Your task to perform on an android device: add a contact in the contacts app Image 0: 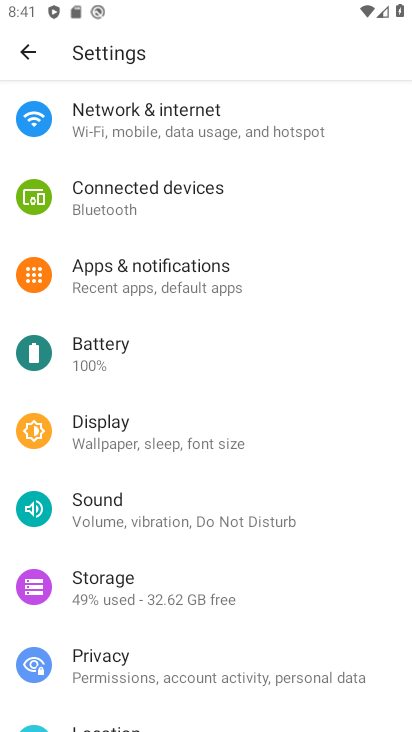
Step 0: press home button
Your task to perform on an android device: add a contact in the contacts app Image 1: 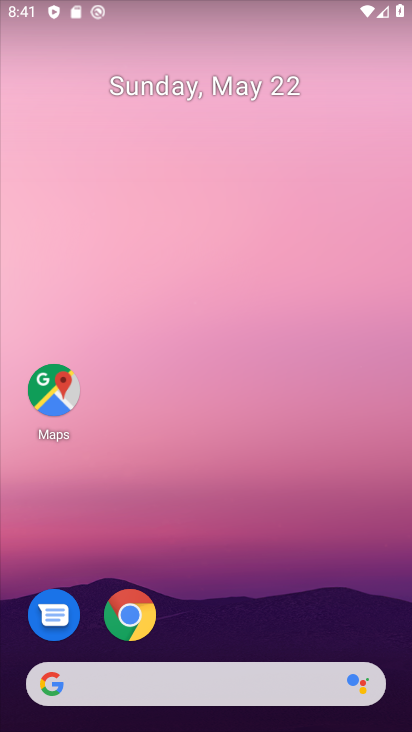
Step 1: drag from (287, 604) to (262, 264)
Your task to perform on an android device: add a contact in the contacts app Image 2: 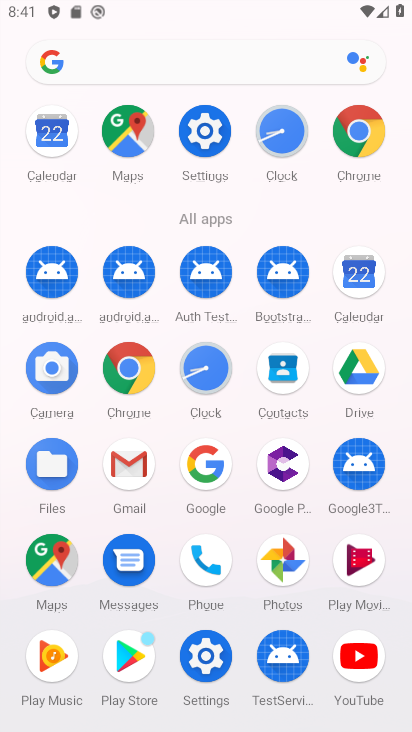
Step 2: click (214, 555)
Your task to perform on an android device: add a contact in the contacts app Image 3: 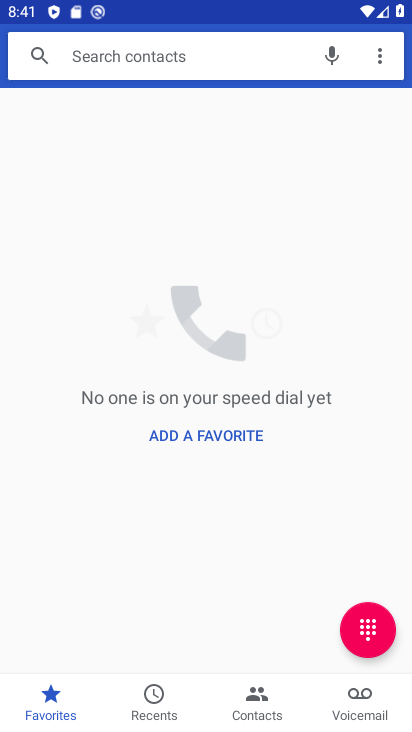
Step 3: click (209, 432)
Your task to perform on an android device: add a contact in the contacts app Image 4: 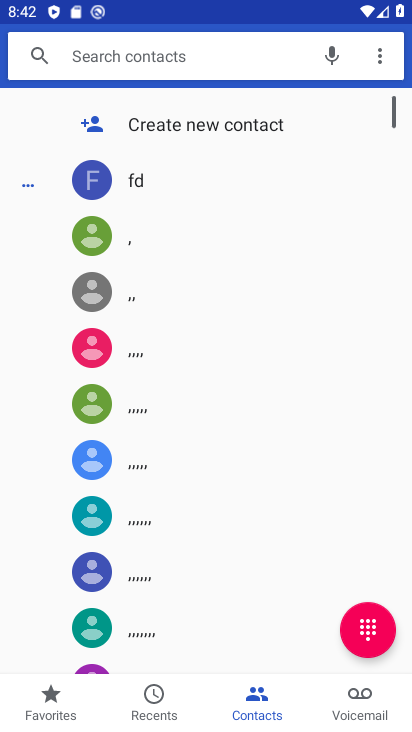
Step 4: click (164, 126)
Your task to perform on an android device: add a contact in the contacts app Image 5: 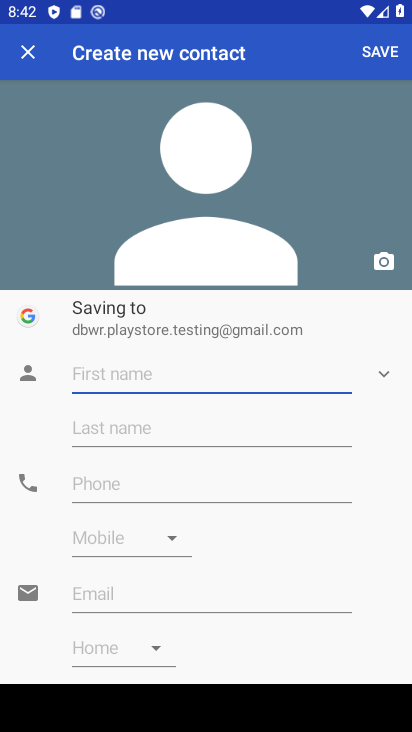
Step 5: click (173, 369)
Your task to perform on an android device: add a contact in the contacts app Image 6: 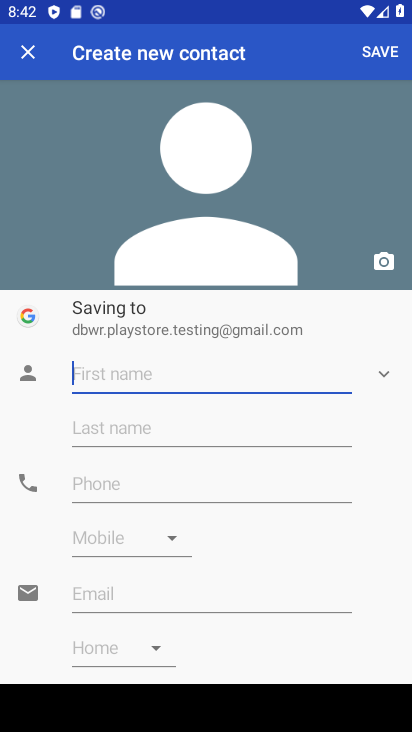
Step 6: type "kjkjkjkjkjk"
Your task to perform on an android device: add a contact in the contacts app Image 7: 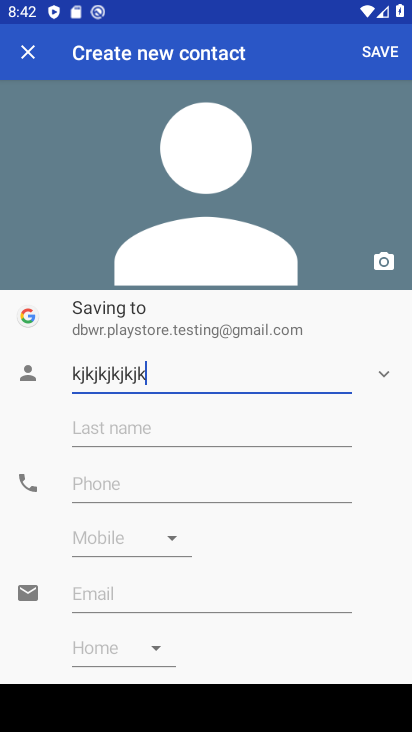
Step 7: click (170, 494)
Your task to perform on an android device: add a contact in the contacts app Image 8: 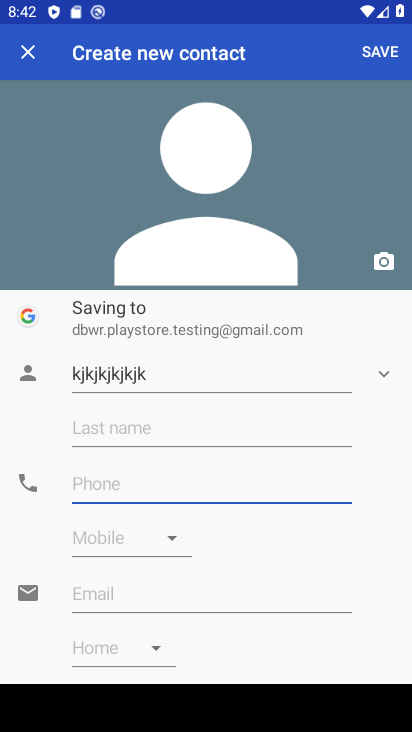
Step 8: type "09876543"
Your task to perform on an android device: add a contact in the contacts app Image 9: 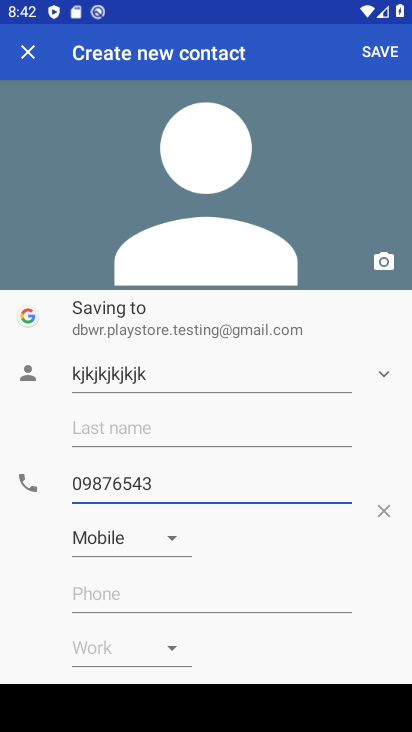
Step 9: task complete